Your task to perform on an android device: set an alarm Image 0: 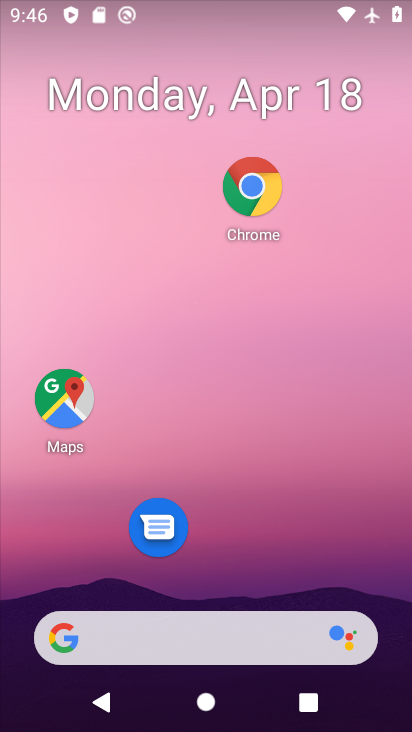
Step 0: drag from (271, 567) to (269, 76)
Your task to perform on an android device: set an alarm Image 1: 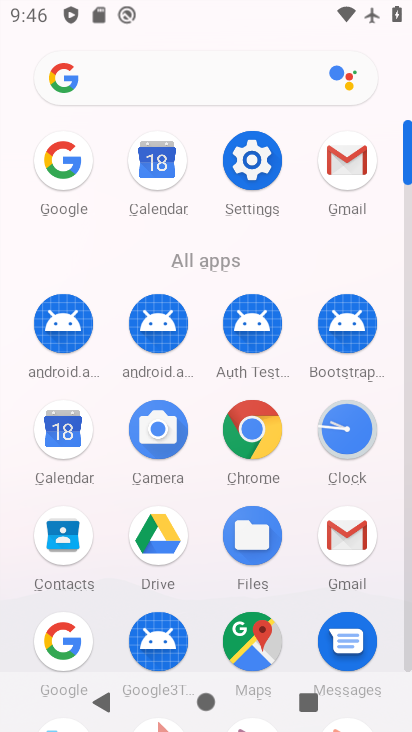
Step 1: click (350, 428)
Your task to perform on an android device: set an alarm Image 2: 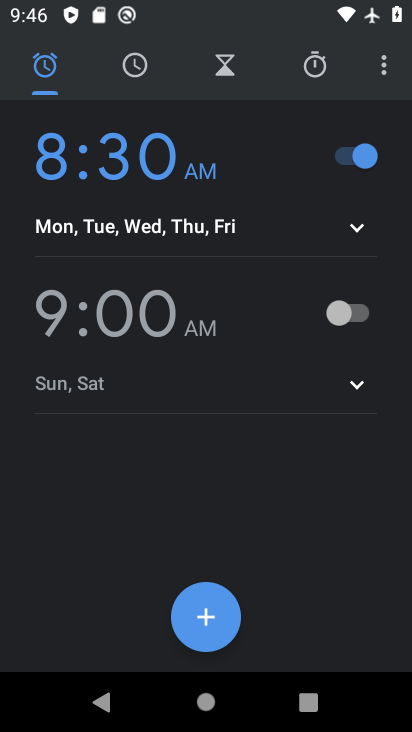
Step 2: click (349, 313)
Your task to perform on an android device: set an alarm Image 3: 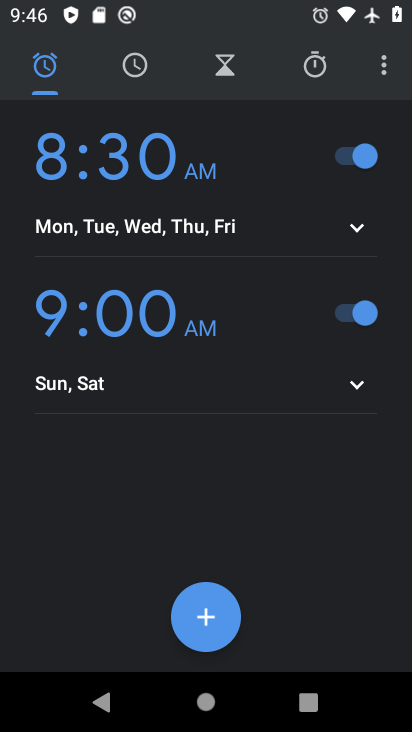
Step 3: task complete